Your task to perform on an android device: Go to Reddit.com Image 0: 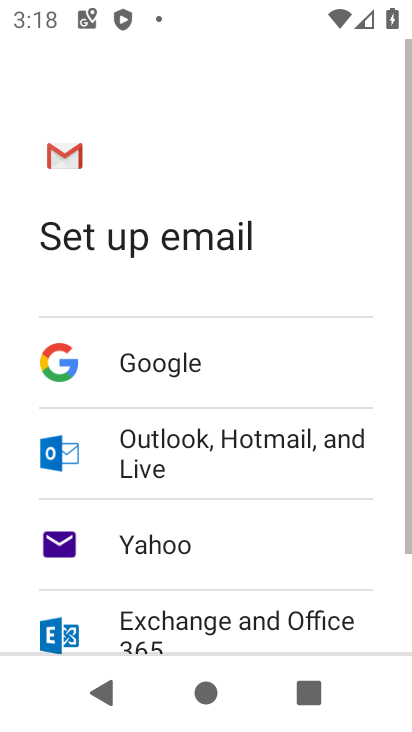
Step 0: press home button
Your task to perform on an android device: Go to Reddit.com Image 1: 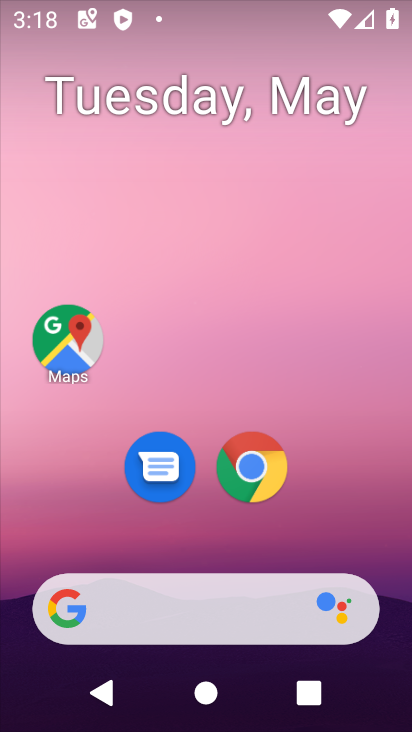
Step 1: click (227, 613)
Your task to perform on an android device: Go to Reddit.com Image 2: 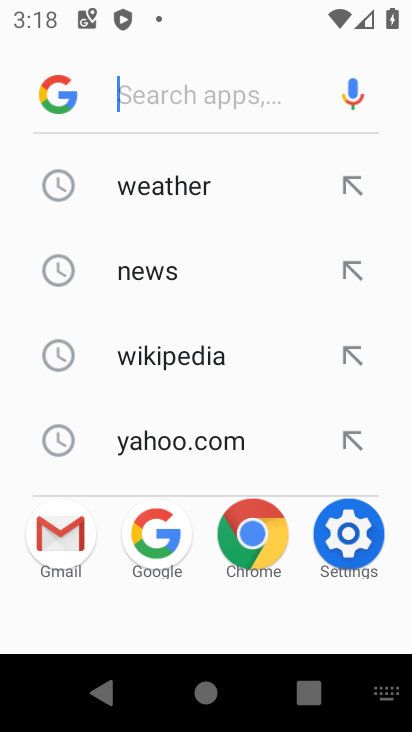
Step 2: type "Reddit.com"
Your task to perform on an android device: Go to Reddit.com Image 3: 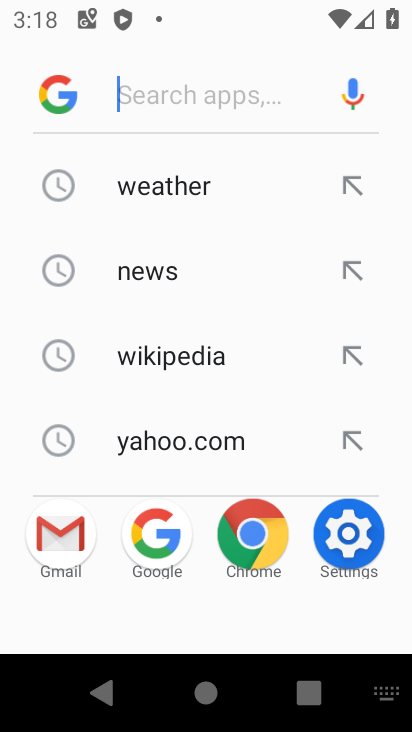
Step 3: click (177, 91)
Your task to perform on an android device: Go to Reddit.com Image 4: 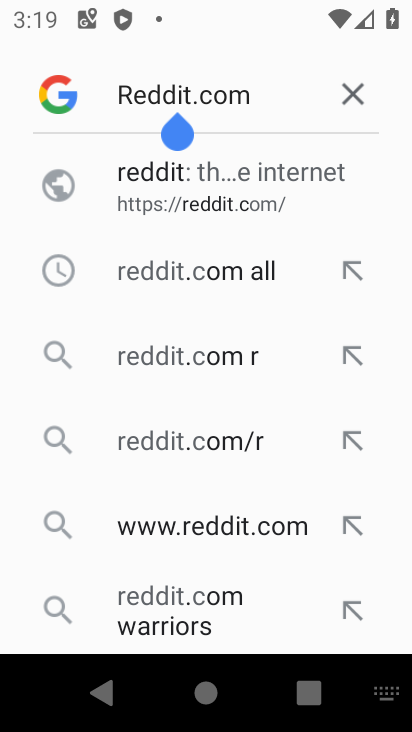
Step 4: click (232, 192)
Your task to perform on an android device: Go to Reddit.com Image 5: 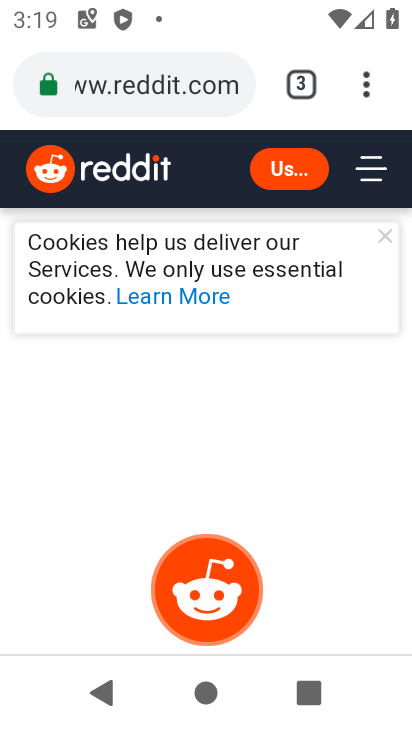
Step 5: task complete